Your task to perform on an android device: empty trash in google photos Image 0: 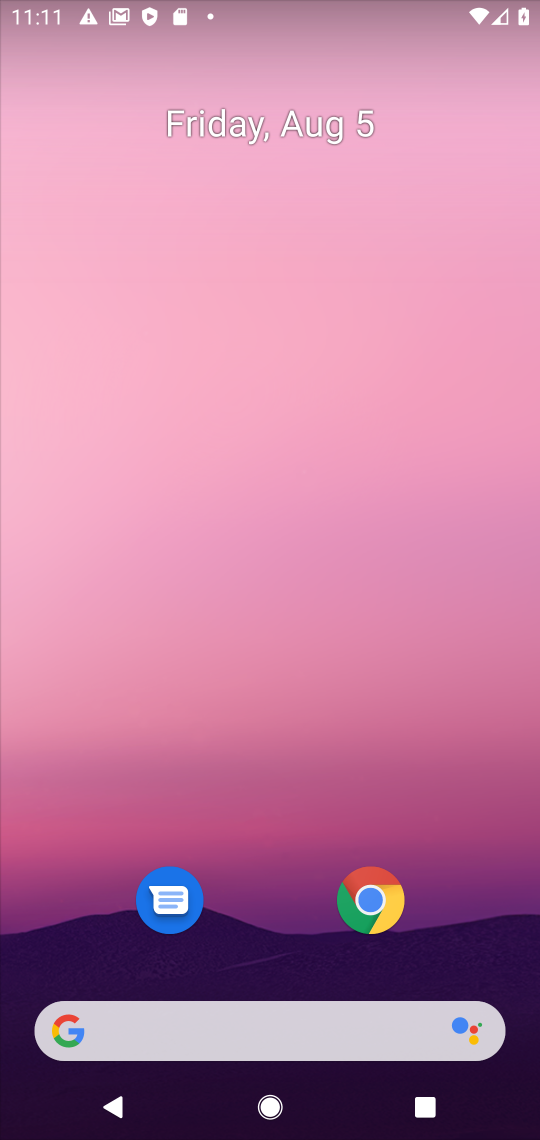
Step 0: drag from (275, 834) to (275, 19)
Your task to perform on an android device: empty trash in google photos Image 1: 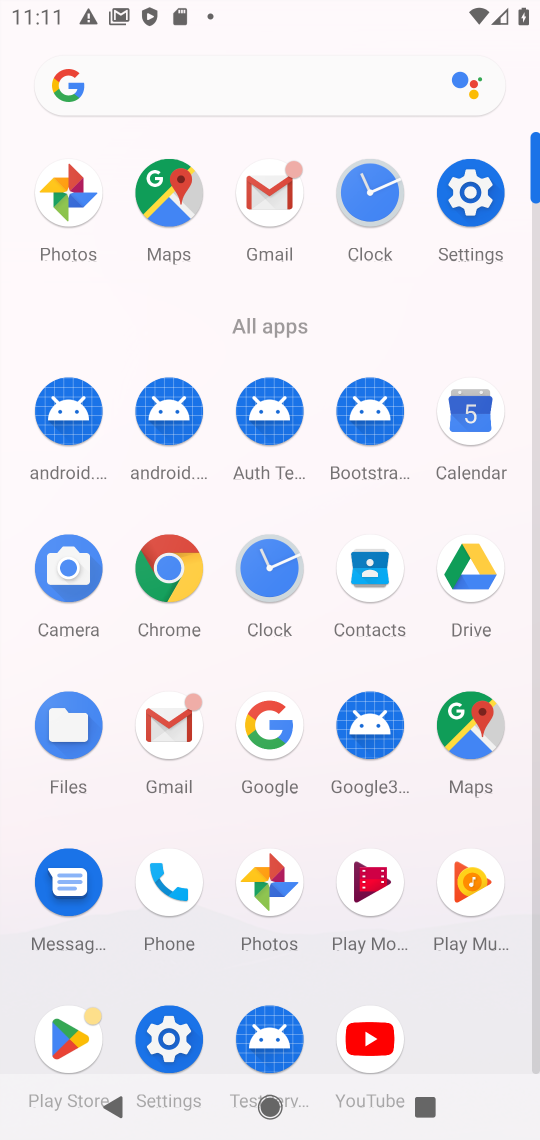
Step 1: click (275, 873)
Your task to perform on an android device: empty trash in google photos Image 2: 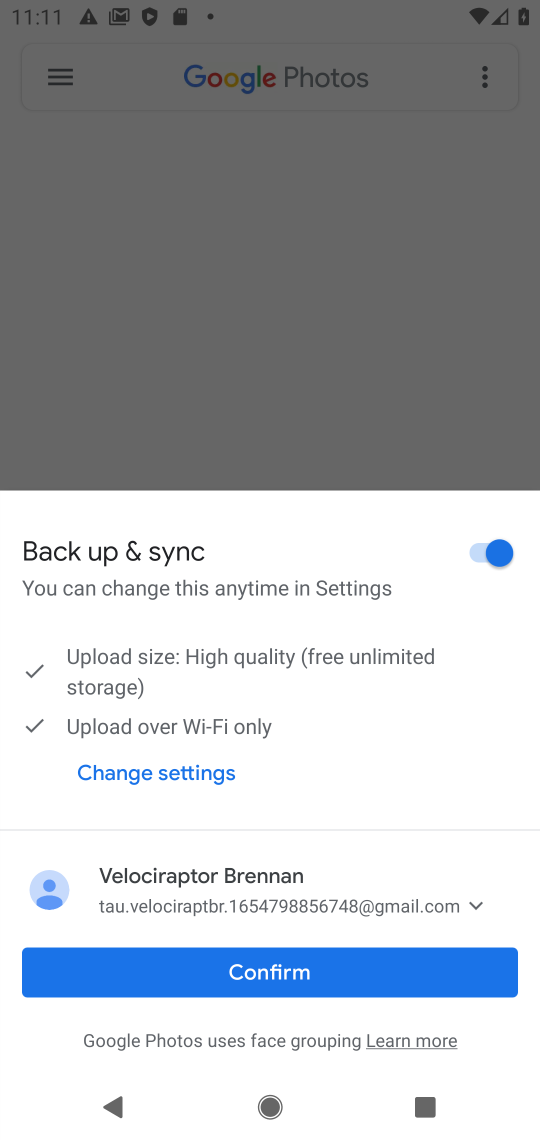
Step 2: click (238, 976)
Your task to perform on an android device: empty trash in google photos Image 3: 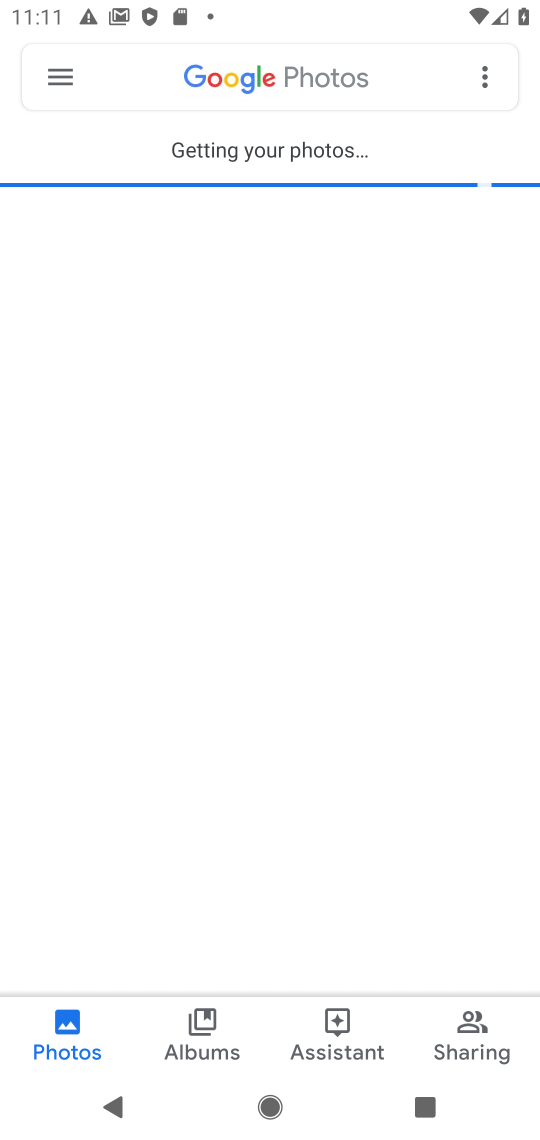
Step 3: click (58, 75)
Your task to perform on an android device: empty trash in google photos Image 4: 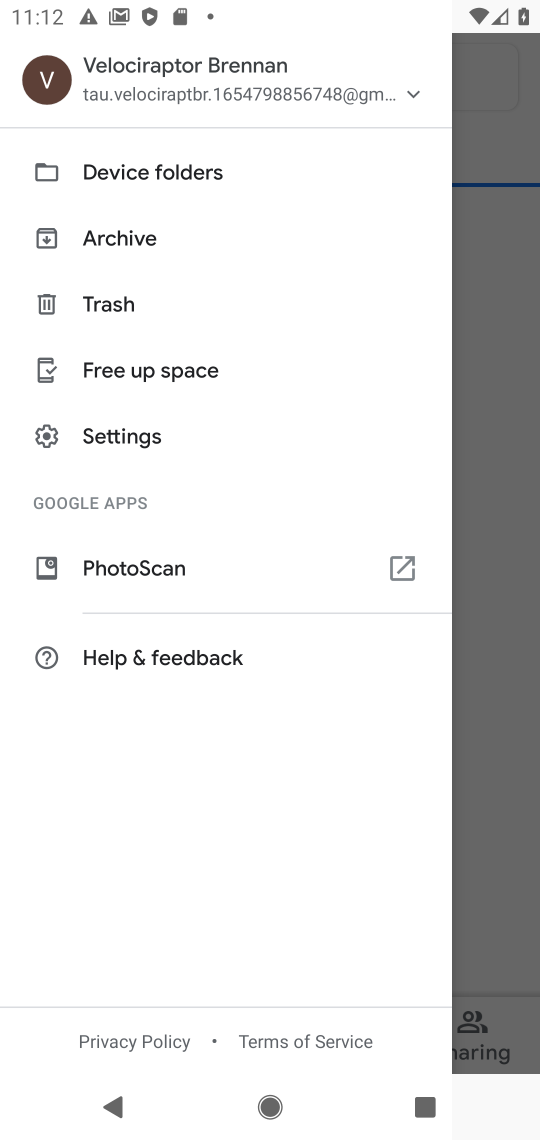
Step 4: click (112, 306)
Your task to perform on an android device: empty trash in google photos Image 5: 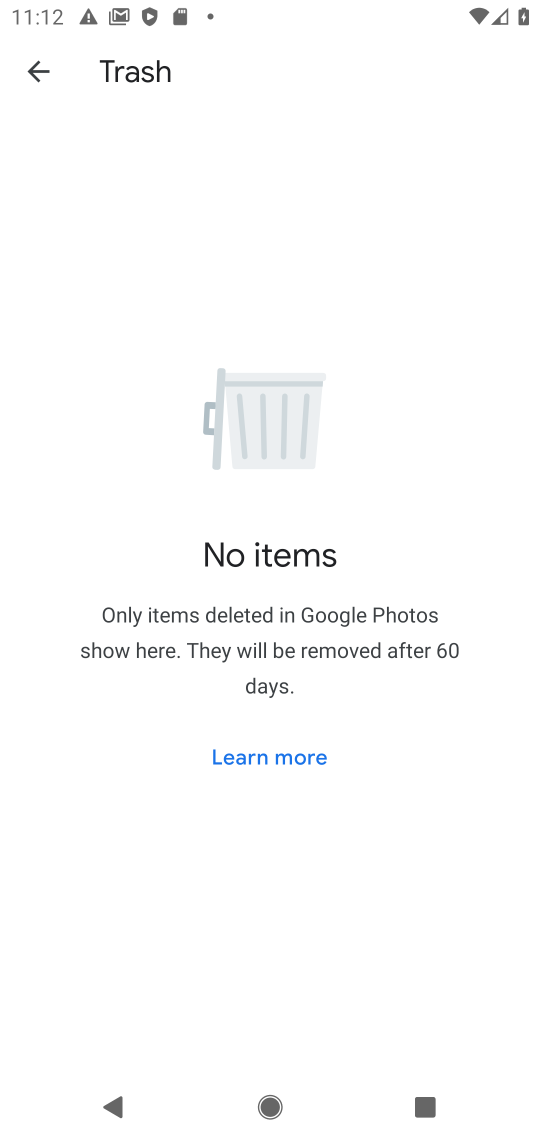
Step 5: task complete